Your task to perform on an android device: Open the map Image 0: 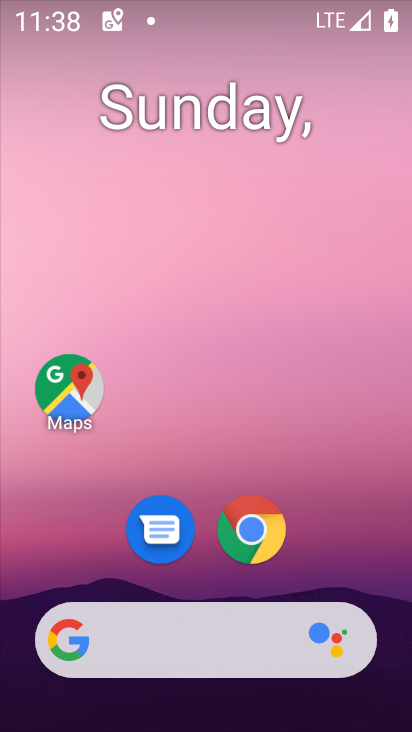
Step 0: click (70, 389)
Your task to perform on an android device: Open the map Image 1: 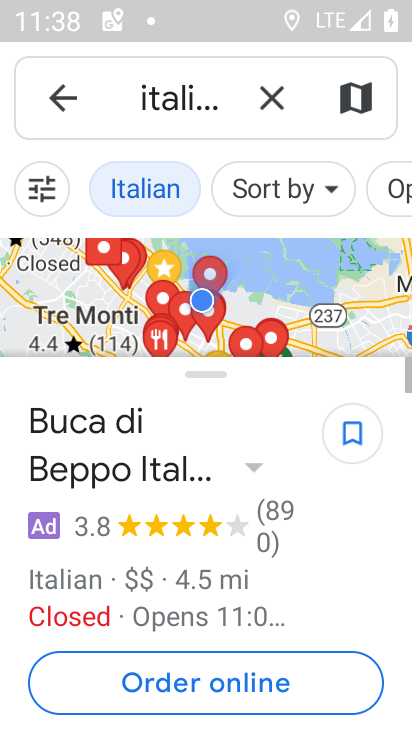
Step 1: click (268, 102)
Your task to perform on an android device: Open the map Image 2: 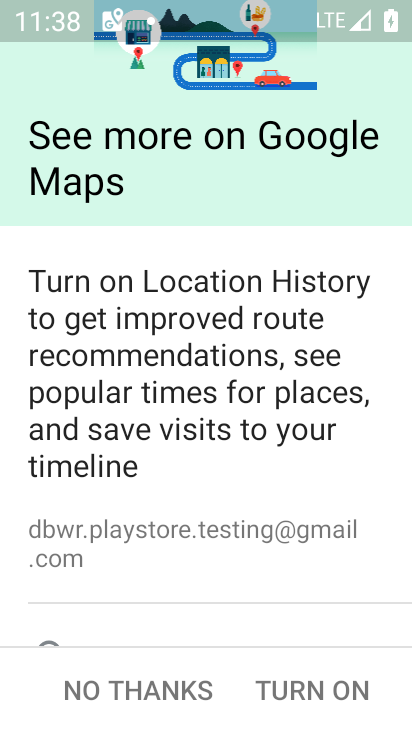
Step 2: click (166, 680)
Your task to perform on an android device: Open the map Image 3: 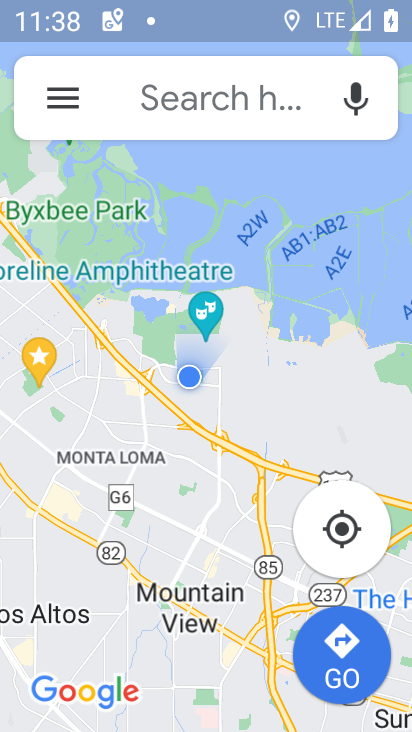
Step 3: task complete